Your task to perform on an android device: open sync settings in chrome Image 0: 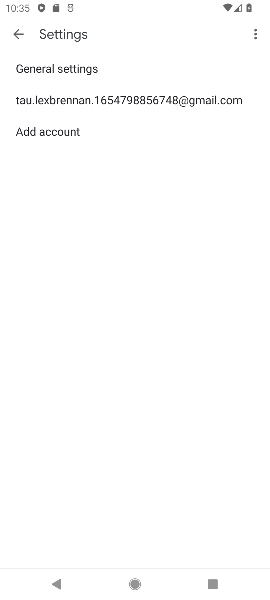
Step 0: press back button
Your task to perform on an android device: open sync settings in chrome Image 1: 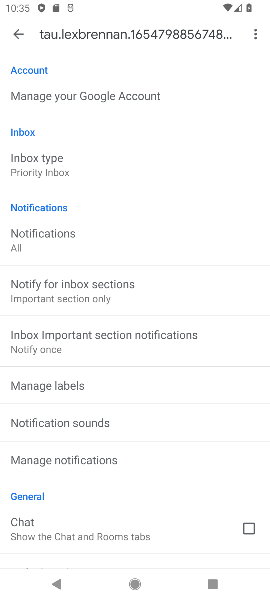
Step 1: press back button
Your task to perform on an android device: open sync settings in chrome Image 2: 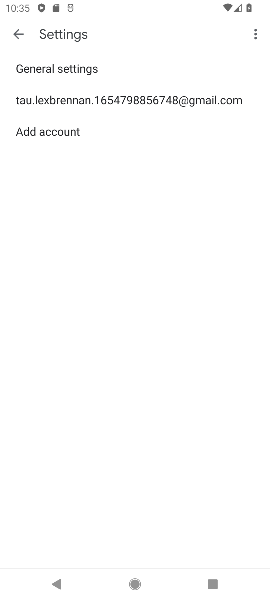
Step 2: press home button
Your task to perform on an android device: open sync settings in chrome Image 3: 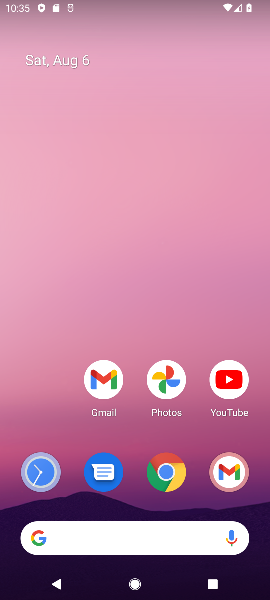
Step 3: click (173, 476)
Your task to perform on an android device: open sync settings in chrome Image 4: 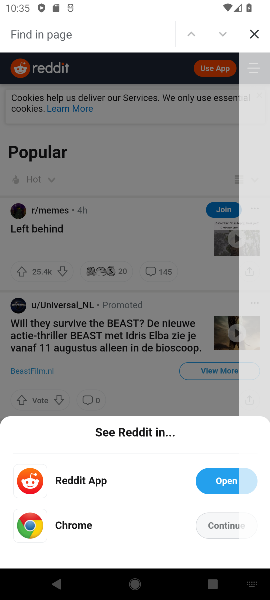
Step 4: click (245, 31)
Your task to perform on an android device: open sync settings in chrome Image 5: 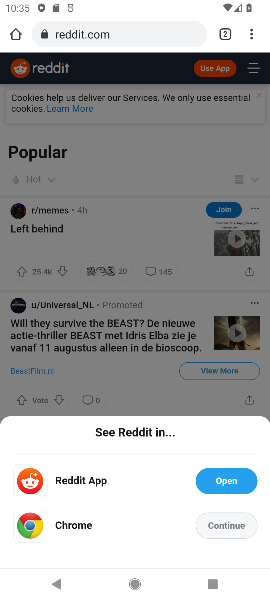
Step 5: drag from (252, 30) to (148, 484)
Your task to perform on an android device: open sync settings in chrome Image 6: 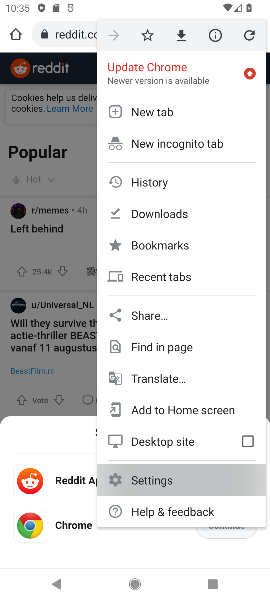
Step 6: click (148, 484)
Your task to perform on an android device: open sync settings in chrome Image 7: 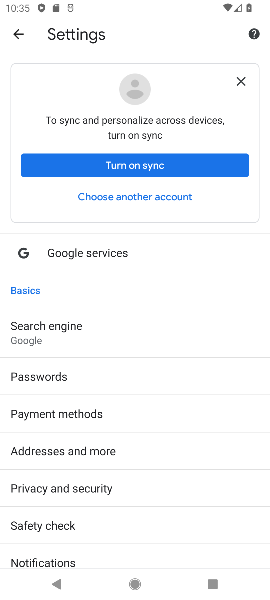
Step 7: drag from (69, 524) to (85, 68)
Your task to perform on an android device: open sync settings in chrome Image 8: 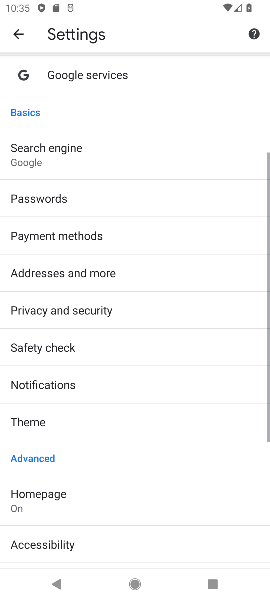
Step 8: drag from (120, 383) to (99, 53)
Your task to perform on an android device: open sync settings in chrome Image 9: 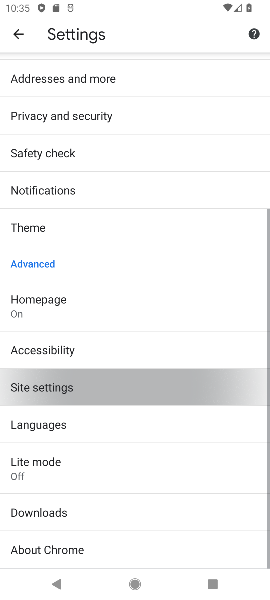
Step 9: drag from (111, 416) to (134, 42)
Your task to perform on an android device: open sync settings in chrome Image 10: 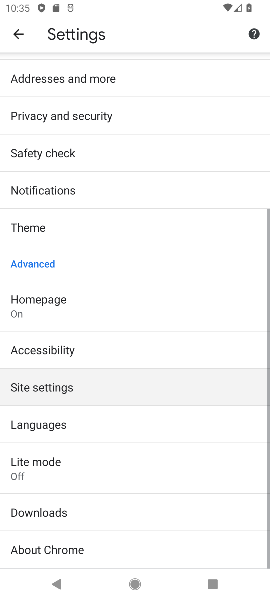
Step 10: drag from (18, 454) to (81, 102)
Your task to perform on an android device: open sync settings in chrome Image 11: 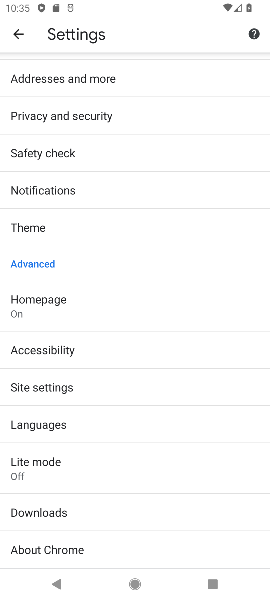
Step 11: click (28, 380)
Your task to perform on an android device: open sync settings in chrome Image 12: 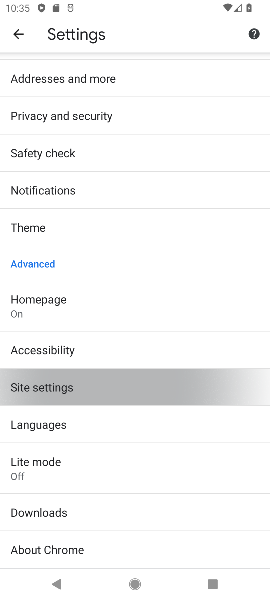
Step 12: click (28, 379)
Your task to perform on an android device: open sync settings in chrome Image 13: 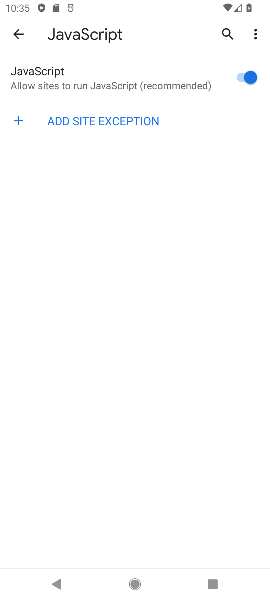
Step 13: click (22, 32)
Your task to perform on an android device: open sync settings in chrome Image 14: 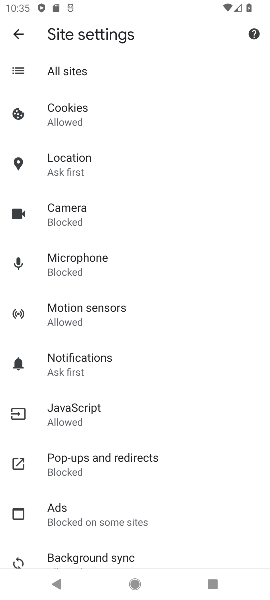
Step 14: click (64, 549)
Your task to perform on an android device: open sync settings in chrome Image 15: 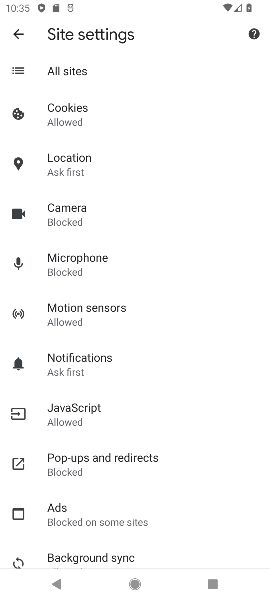
Step 15: click (64, 549)
Your task to perform on an android device: open sync settings in chrome Image 16: 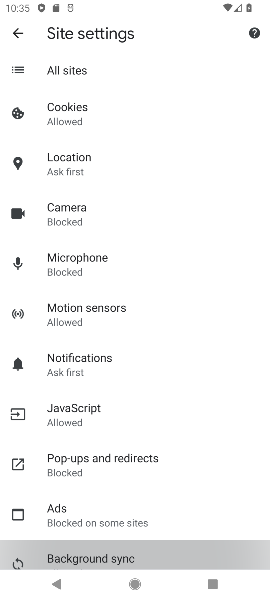
Step 16: click (64, 553)
Your task to perform on an android device: open sync settings in chrome Image 17: 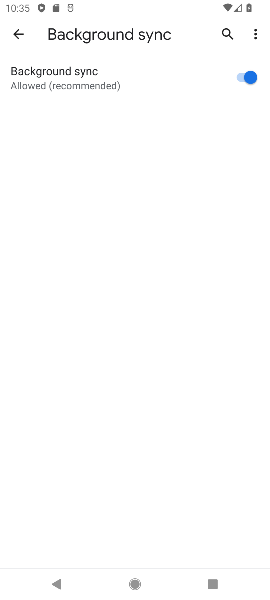
Step 17: task complete